Your task to perform on an android device: turn off data saver in the chrome app Image 0: 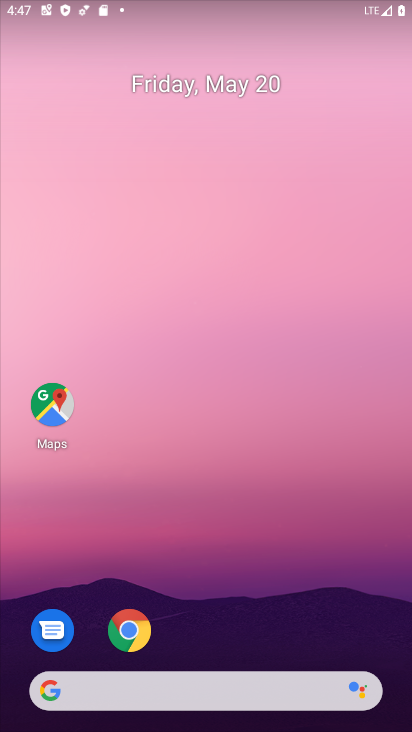
Step 0: click (135, 625)
Your task to perform on an android device: turn off data saver in the chrome app Image 1: 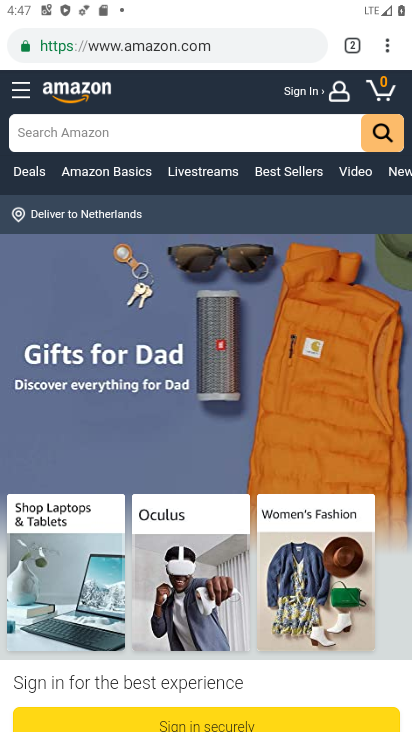
Step 1: click (381, 45)
Your task to perform on an android device: turn off data saver in the chrome app Image 2: 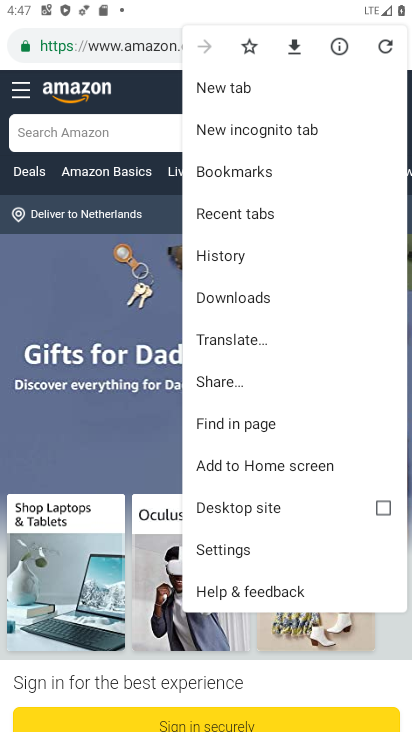
Step 2: click (246, 549)
Your task to perform on an android device: turn off data saver in the chrome app Image 3: 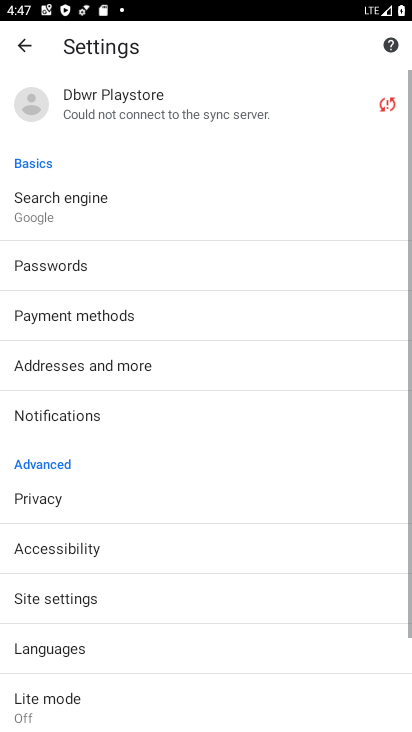
Step 3: drag from (251, 529) to (250, 257)
Your task to perform on an android device: turn off data saver in the chrome app Image 4: 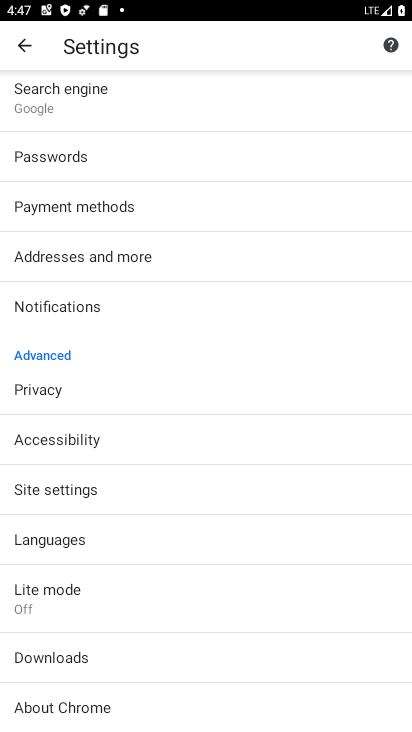
Step 4: click (152, 603)
Your task to perform on an android device: turn off data saver in the chrome app Image 5: 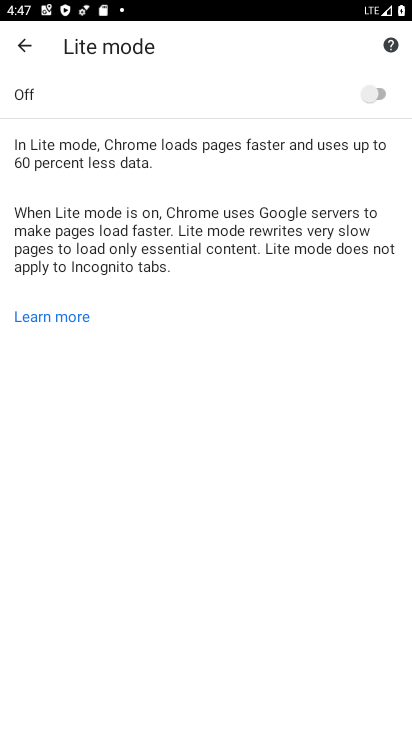
Step 5: task complete